Your task to perform on an android device: Search for 'The Girl on the Train' on Goodreads. Image 0: 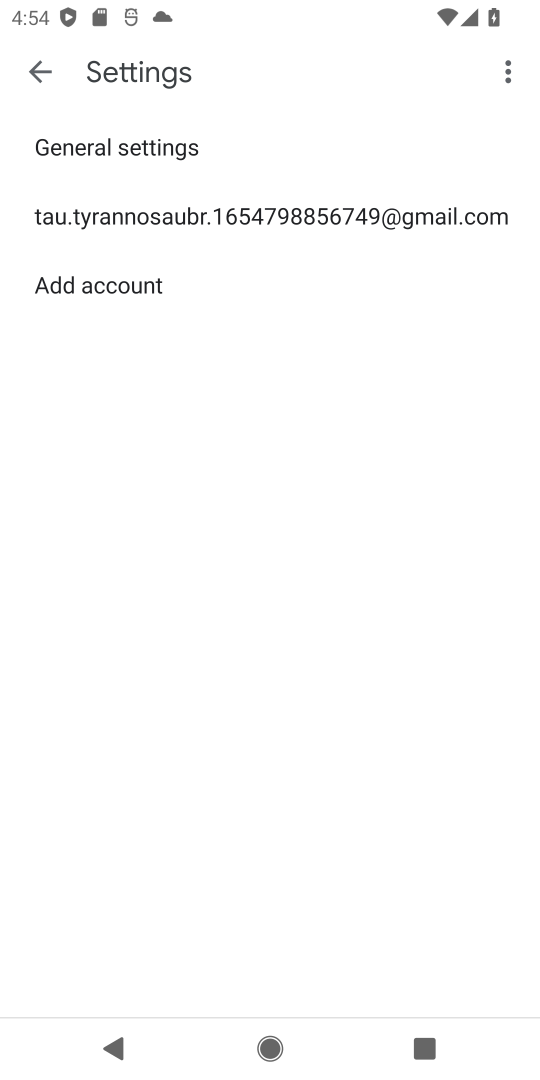
Step 0: press home button
Your task to perform on an android device: Search for 'The Girl on the Train' on Goodreads. Image 1: 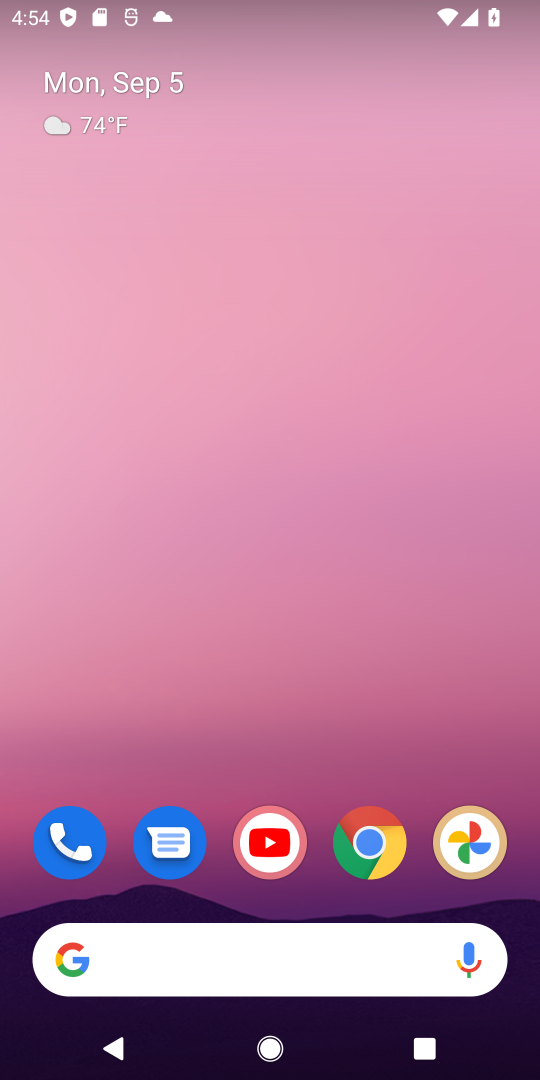
Step 1: click (372, 844)
Your task to perform on an android device: Search for 'The Girl on the Train' on Goodreads. Image 2: 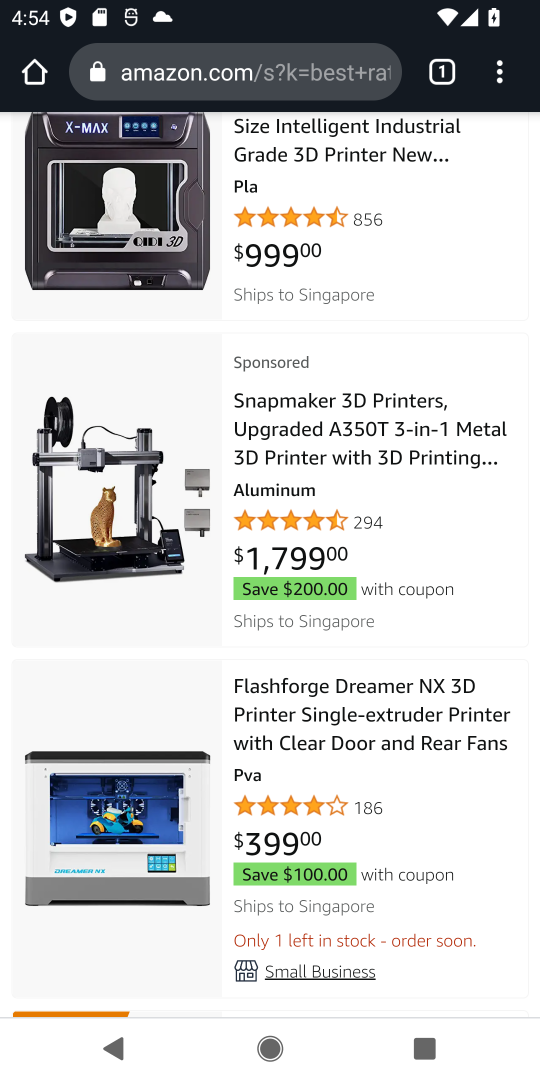
Step 2: click (292, 89)
Your task to perform on an android device: Search for 'The Girl on the Train' on Goodreads. Image 3: 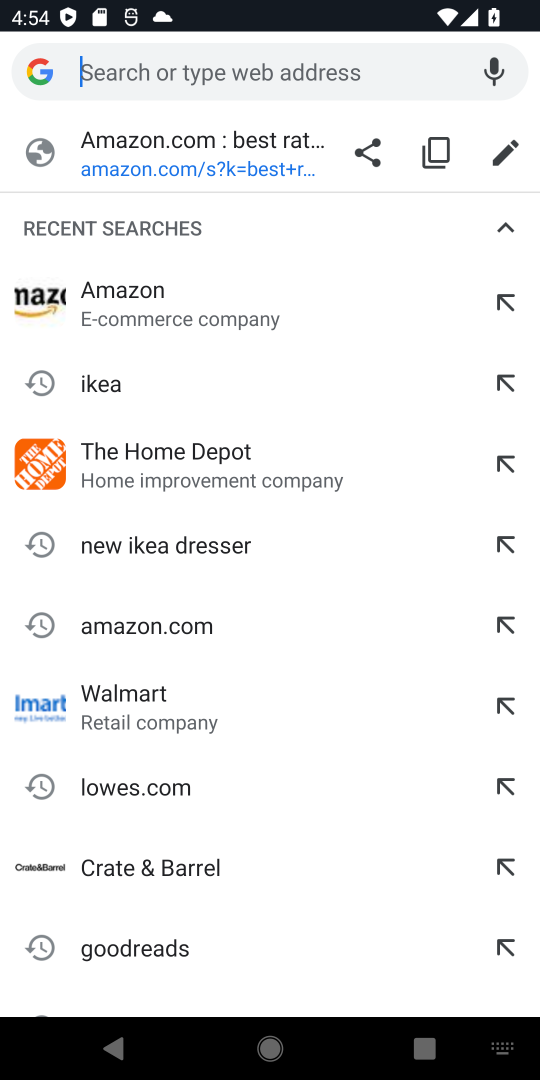
Step 3: type "Goodreads"
Your task to perform on an android device: Search for 'The Girl on the Train' on Goodreads. Image 4: 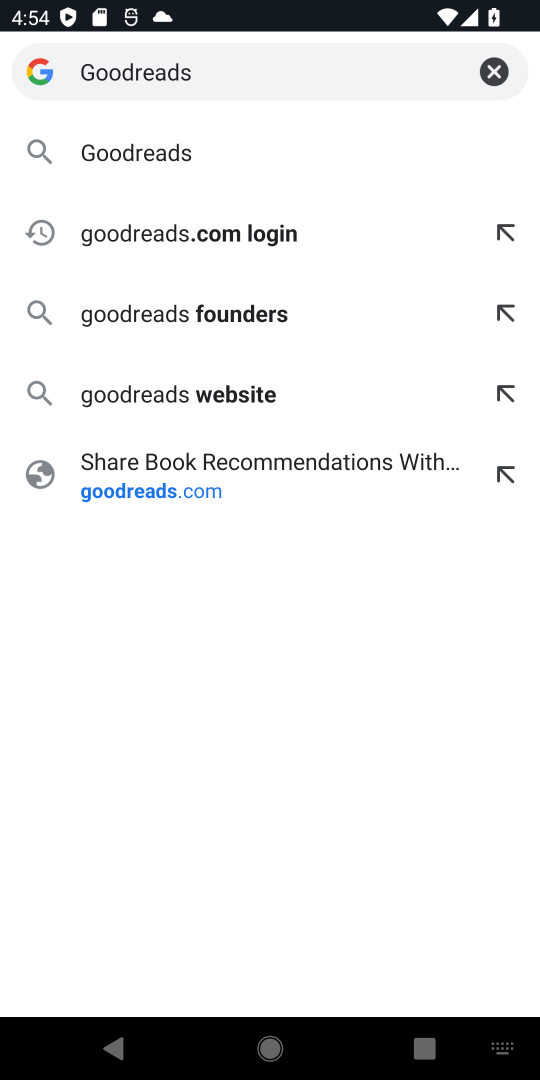
Step 4: click (167, 152)
Your task to perform on an android device: Search for 'The Girl on the Train' on Goodreads. Image 5: 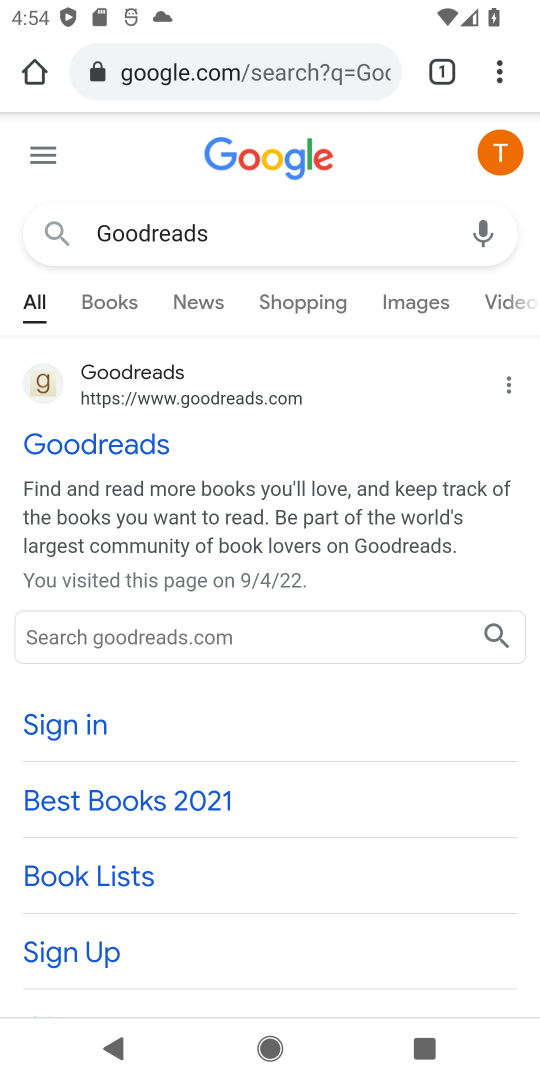
Step 5: click (176, 461)
Your task to perform on an android device: Search for 'The Girl on the Train' on Goodreads. Image 6: 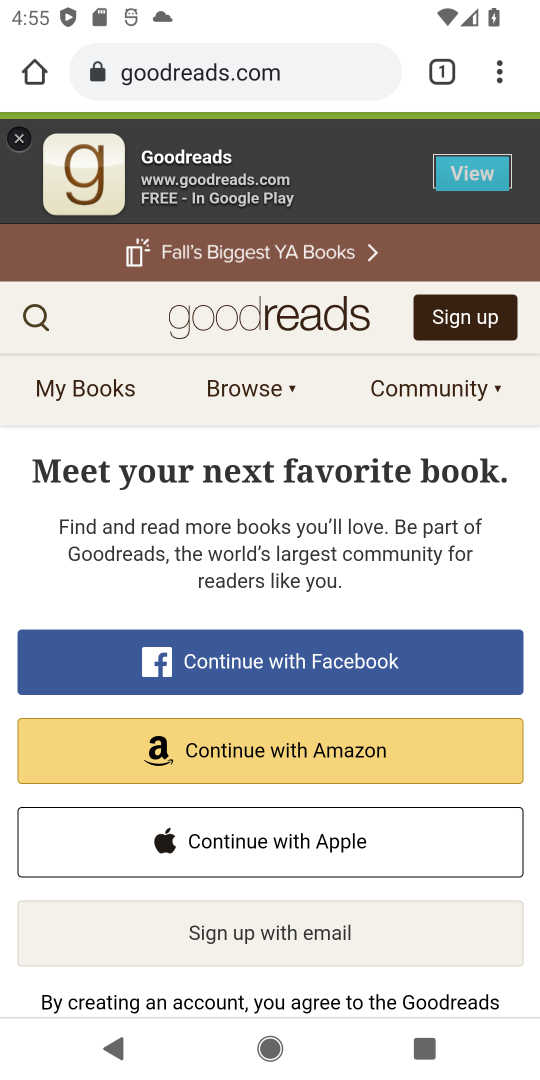
Step 6: click (36, 325)
Your task to perform on an android device: Search for 'The Girl on the Train' on Goodreads. Image 7: 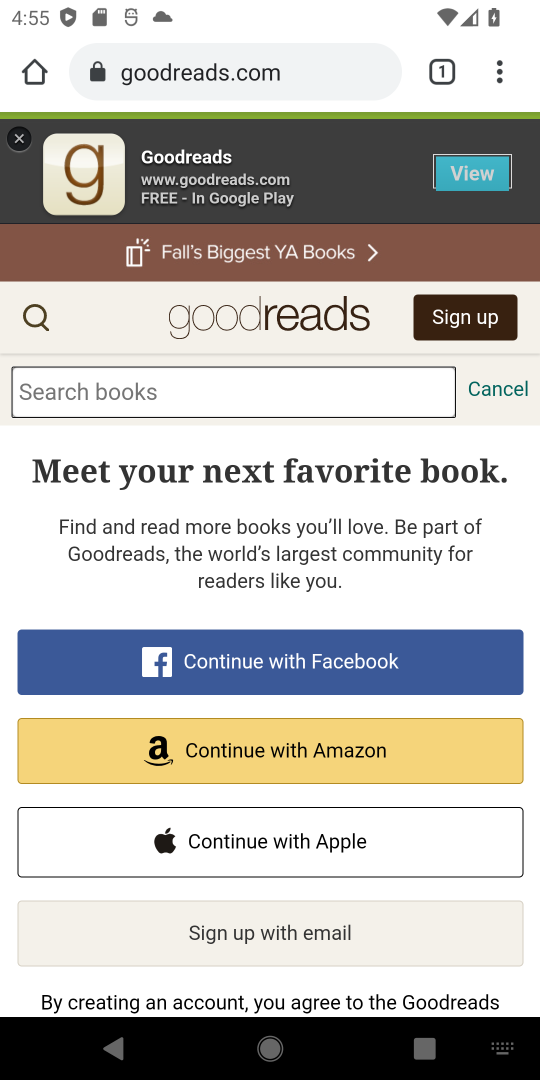
Step 7: click (83, 393)
Your task to perform on an android device: Search for 'The Girl on the Train' on Goodreads. Image 8: 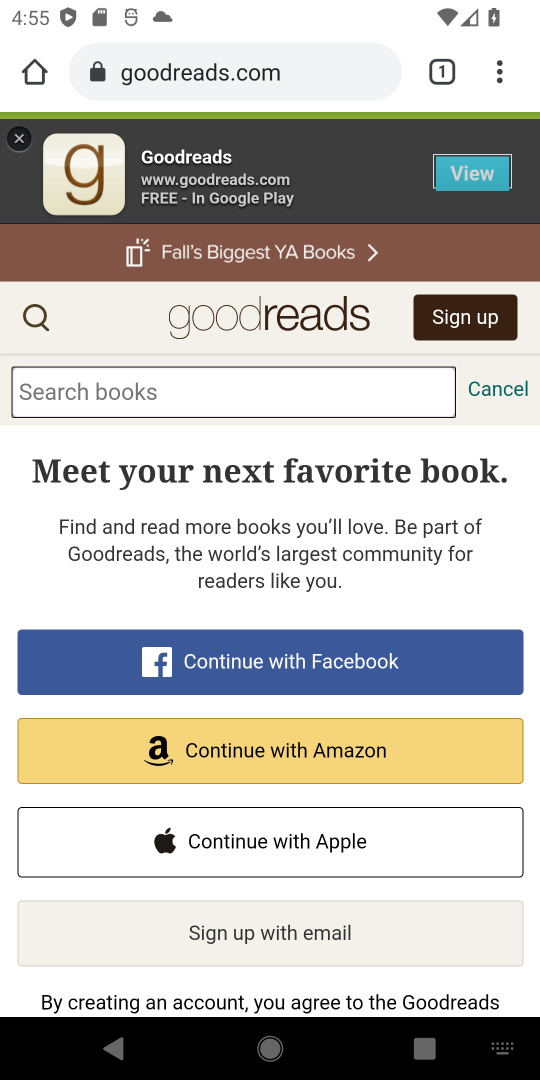
Step 8: type "The Girl on the Train"
Your task to perform on an android device: Search for 'The Girl on the Train' on Goodreads. Image 9: 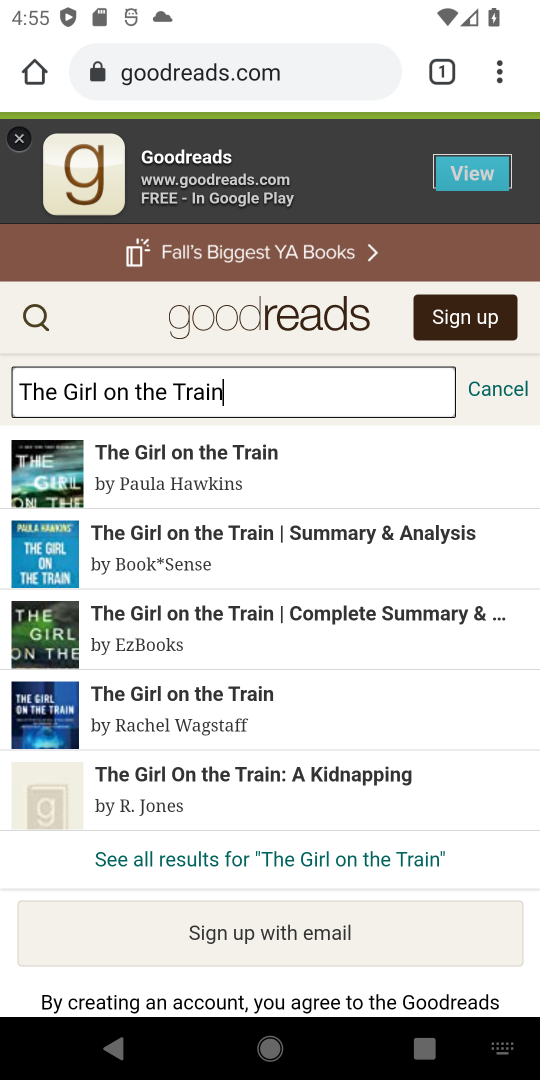
Step 9: click (246, 467)
Your task to perform on an android device: Search for 'The Girl on the Train' on Goodreads. Image 10: 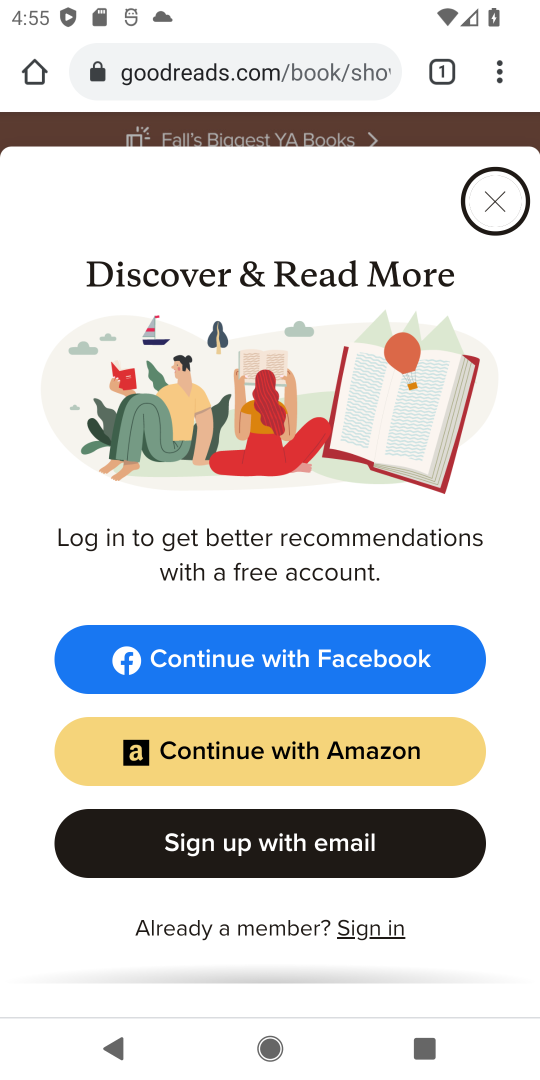
Step 10: click (500, 205)
Your task to perform on an android device: Search for 'The Girl on the Train' on Goodreads. Image 11: 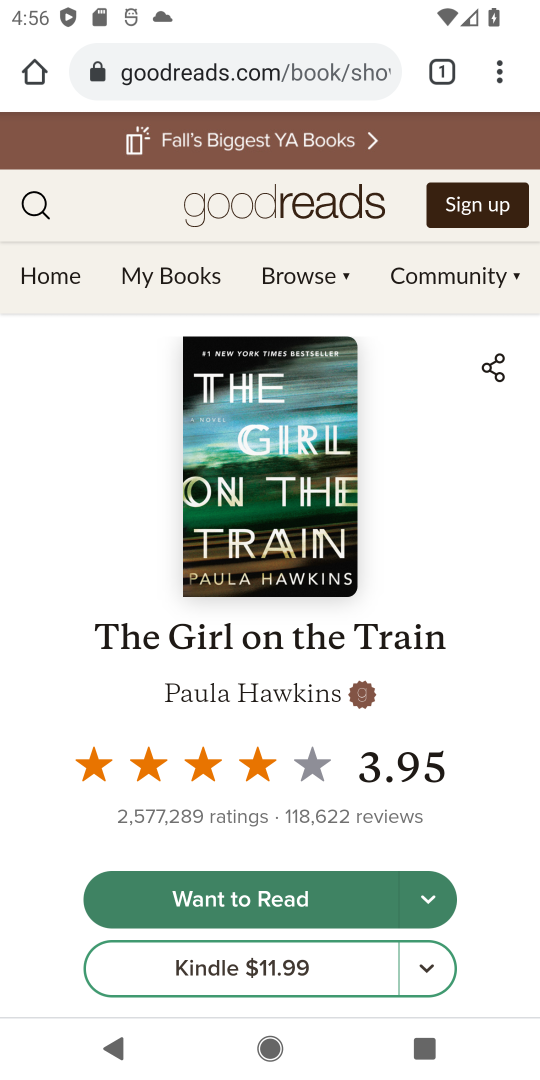
Step 11: task complete